Your task to perform on an android device: toggle javascript in the chrome app Image 0: 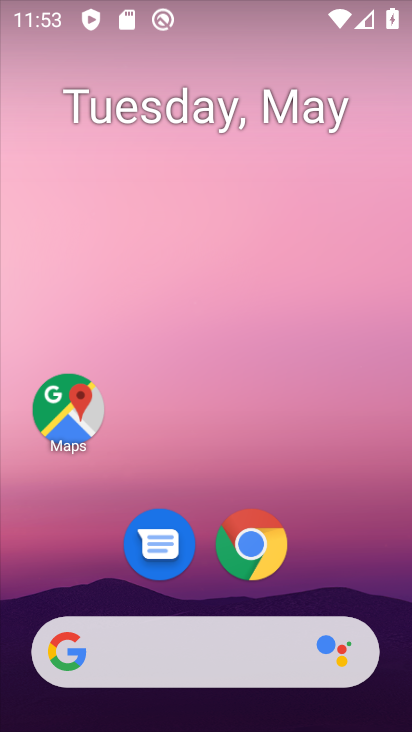
Step 0: click (269, 548)
Your task to perform on an android device: toggle javascript in the chrome app Image 1: 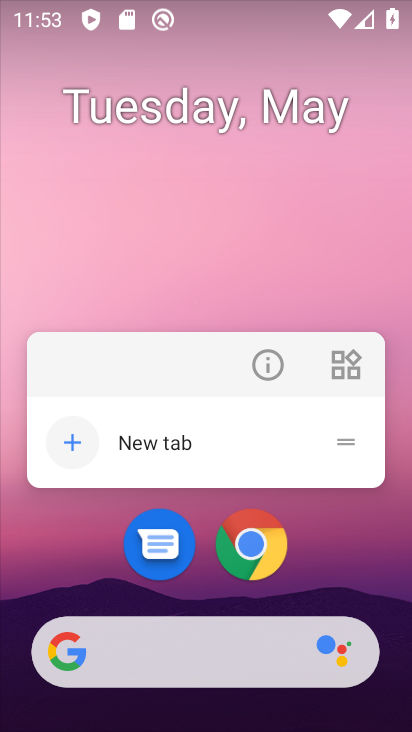
Step 1: click (225, 550)
Your task to perform on an android device: toggle javascript in the chrome app Image 2: 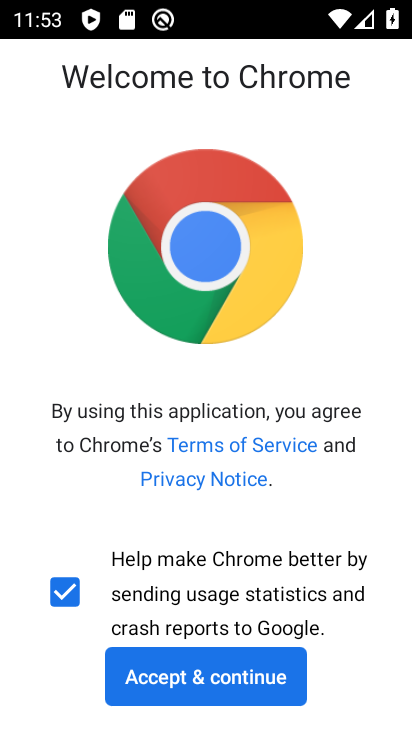
Step 2: click (283, 687)
Your task to perform on an android device: toggle javascript in the chrome app Image 3: 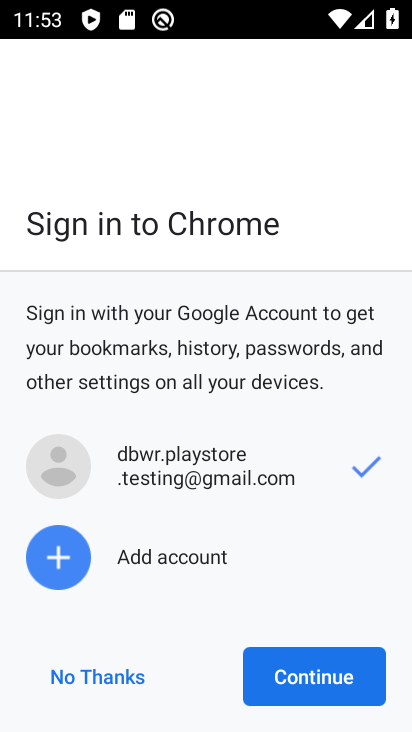
Step 3: click (294, 679)
Your task to perform on an android device: toggle javascript in the chrome app Image 4: 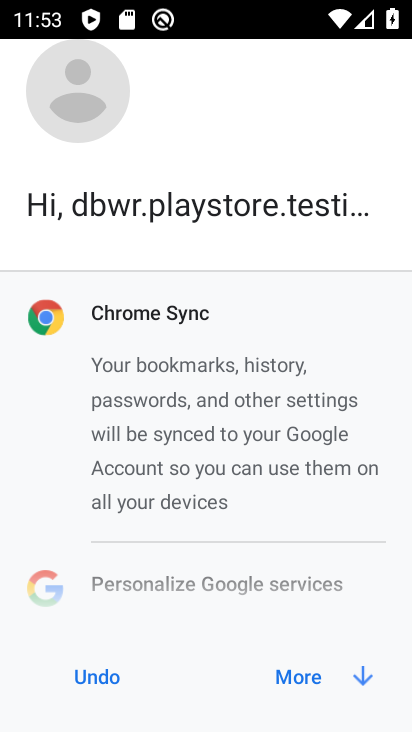
Step 4: click (313, 675)
Your task to perform on an android device: toggle javascript in the chrome app Image 5: 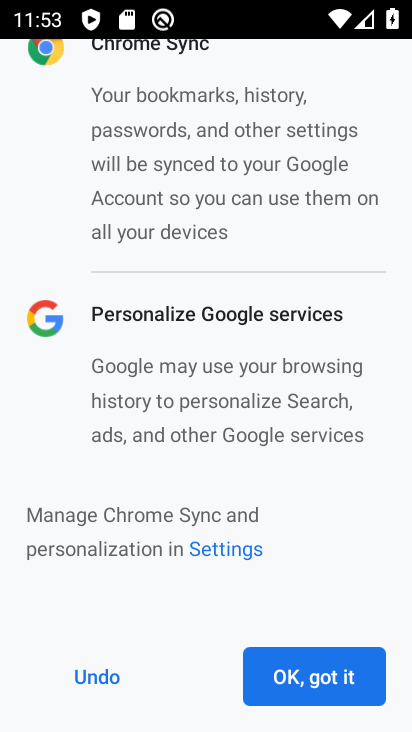
Step 5: click (314, 675)
Your task to perform on an android device: toggle javascript in the chrome app Image 6: 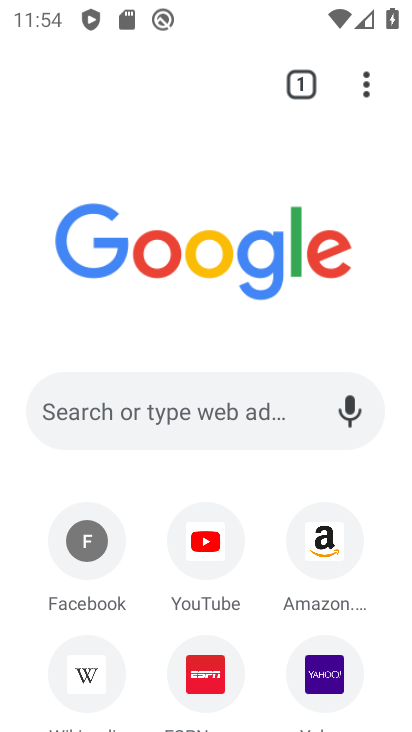
Step 6: drag from (369, 101) to (177, 606)
Your task to perform on an android device: toggle javascript in the chrome app Image 7: 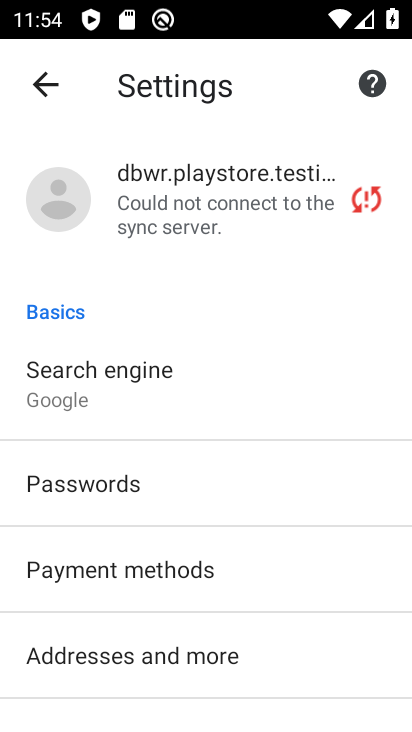
Step 7: drag from (154, 634) to (247, 252)
Your task to perform on an android device: toggle javascript in the chrome app Image 8: 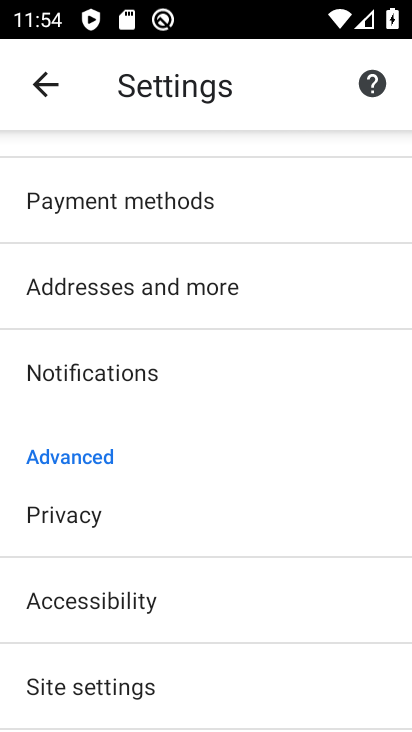
Step 8: click (163, 679)
Your task to perform on an android device: toggle javascript in the chrome app Image 9: 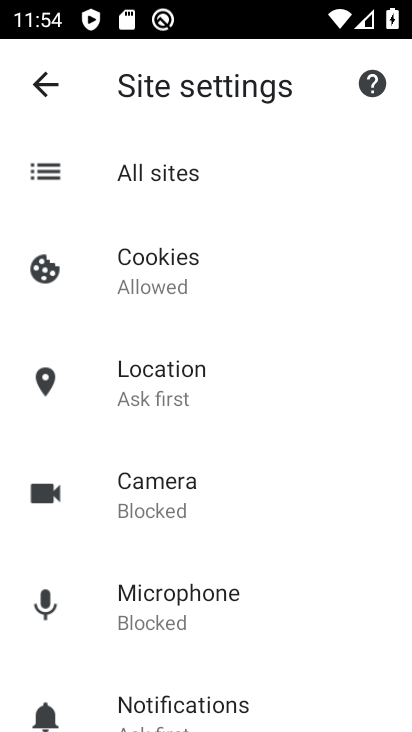
Step 9: drag from (185, 650) to (262, 281)
Your task to perform on an android device: toggle javascript in the chrome app Image 10: 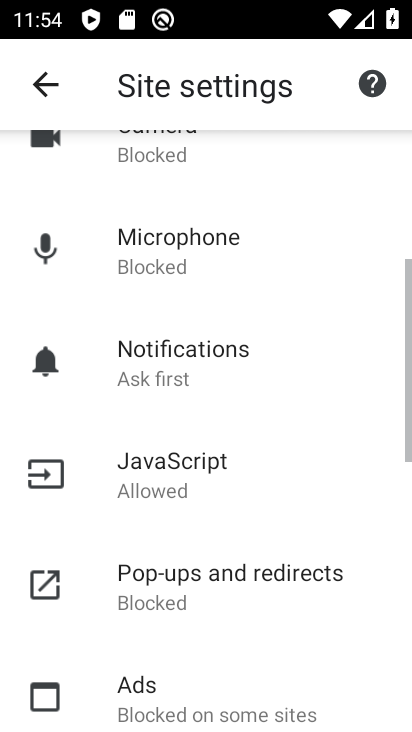
Step 10: click (211, 475)
Your task to perform on an android device: toggle javascript in the chrome app Image 11: 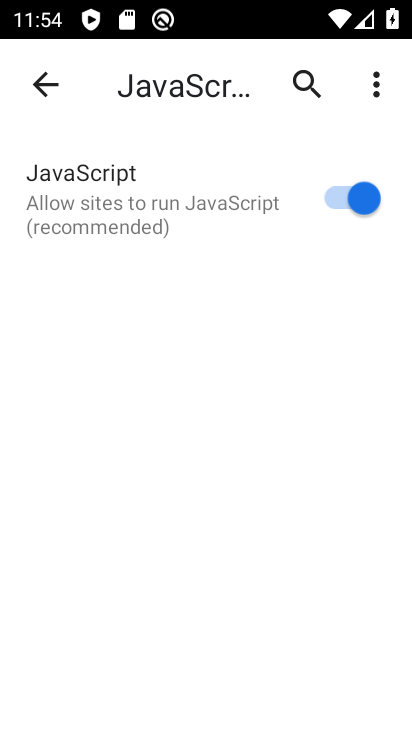
Step 11: task complete